Your task to perform on an android device: turn off javascript in the chrome app Image 0: 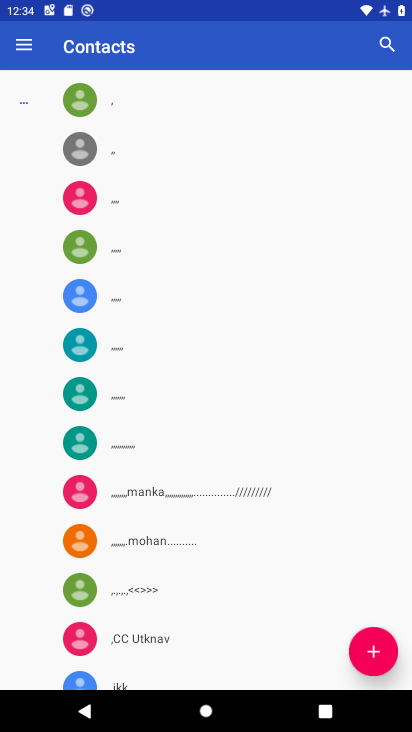
Step 0: press home button
Your task to perform on an android device: turn off javascript in the chrome app Image 1: 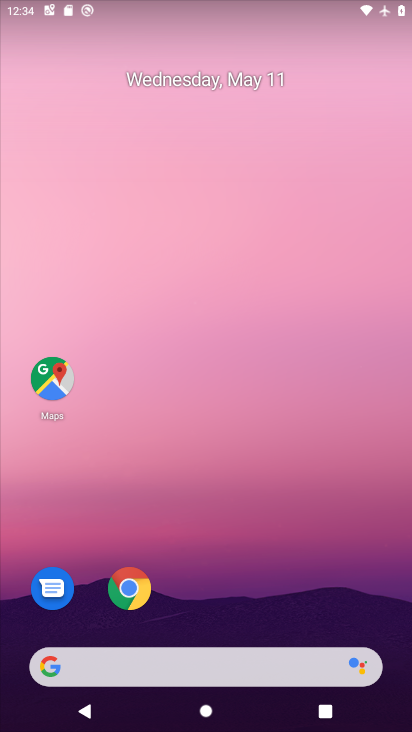
Step 1: click (131, 586)
Your task to perform on an android device: turn off javascript in the chrome app Image 2: 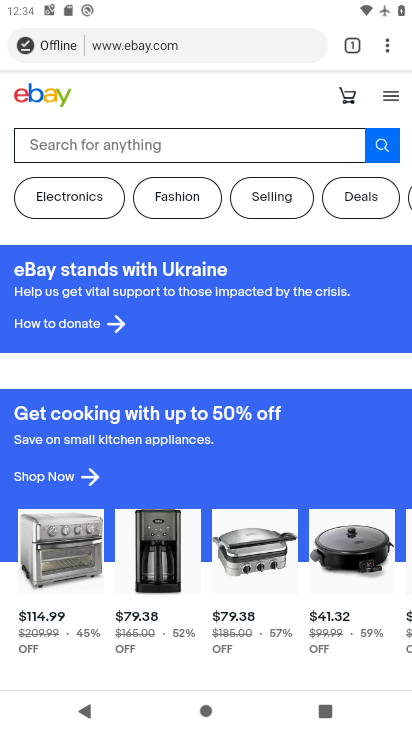
Step 2: click (390, 42)
Your task to perform on an android device: turn off javascript in the chrome app Image 3: 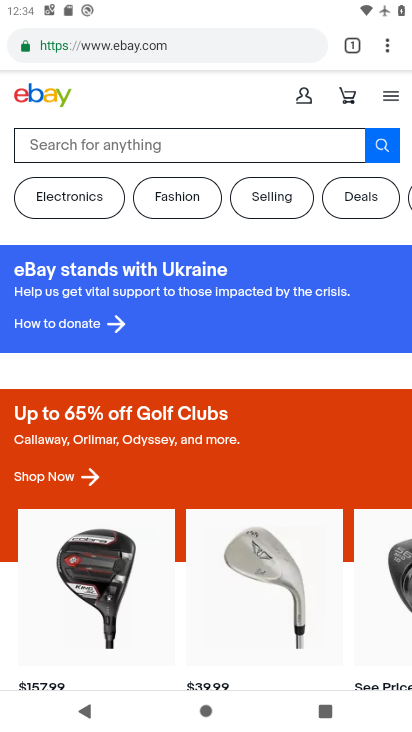
Step 3: click (388, 44)
Your task to perform on an android device: turn off javascript in the chrome app Image 4: 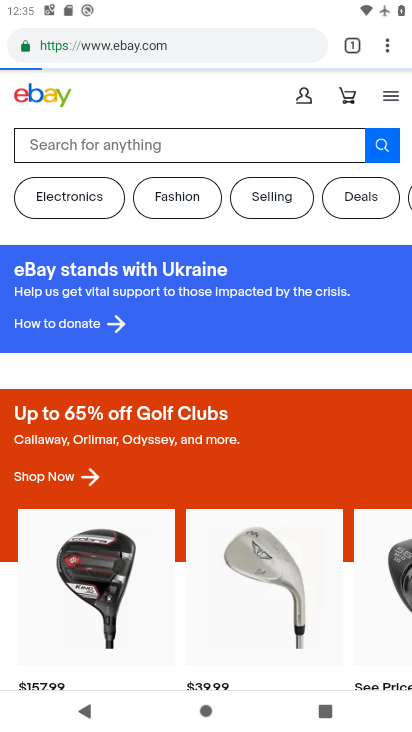
Step 4: click (388, 44)
Your task to perform on an android device: turn off javascript in the chrome app Image 5: 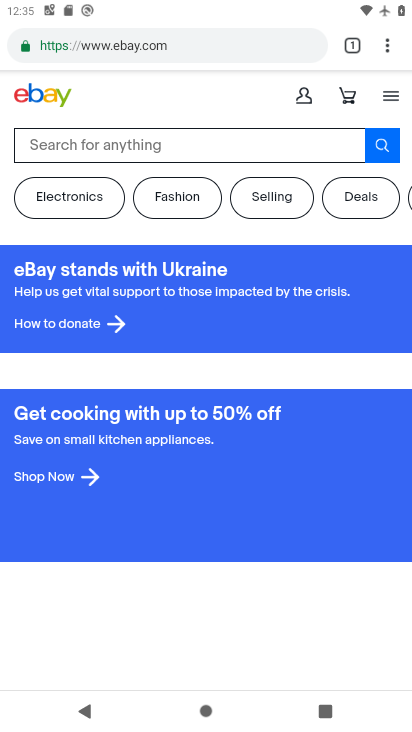
Step 5: click (389, 50)
Your task to perform on an android device: turn off javascript in the chrome app Image 6: 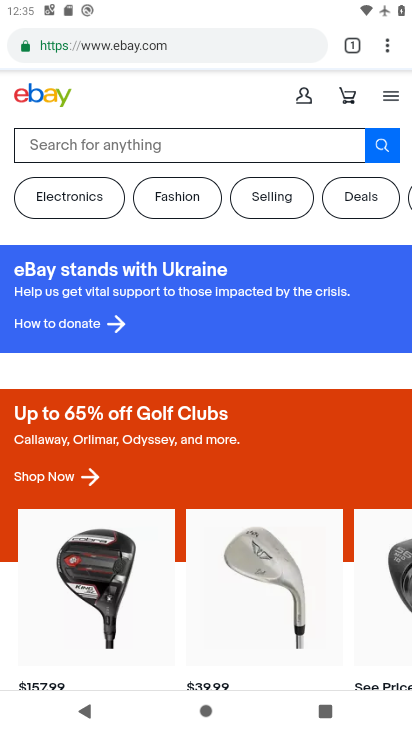
Step 6: click (388, 45)
Your task to perform on an android device: turn off javascript in the chrome app Image 7: 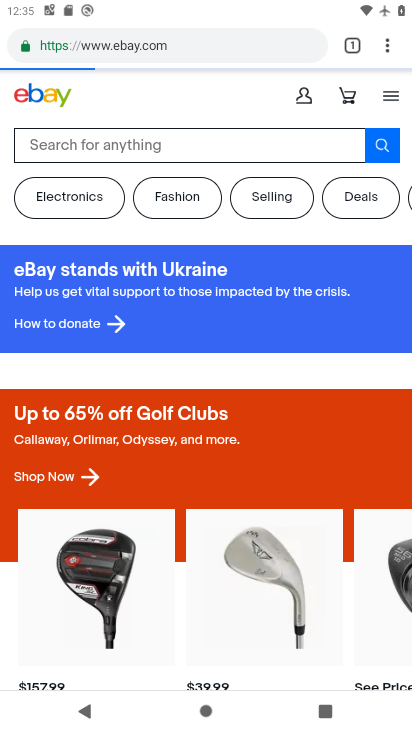
Step 7: click (388, 45)
Your task to perform on an android device: turn off javascript in the chrome app Image 8: 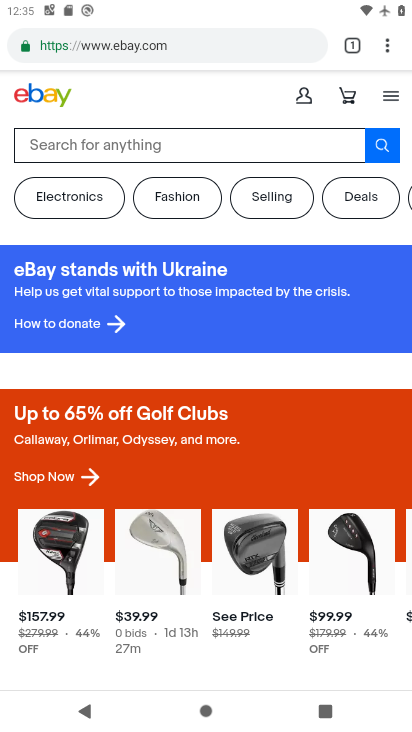
Step 8: click (382, 40)
Your task to perform on an android device: turn off javascript in the chrome app Image 9: 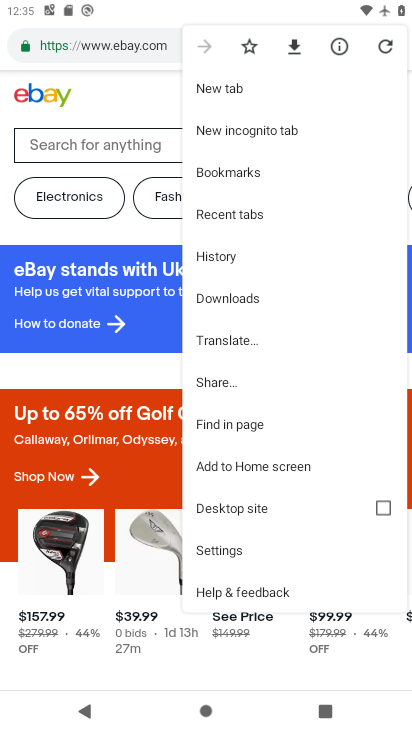
Step 9: click (243, 538)
Your task to perform on an android device: turn off javascript in the chrome app Image 10: 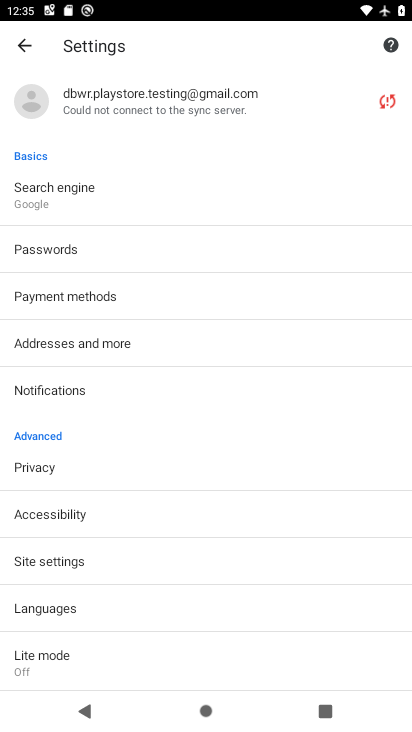
Step 10: drag from (73, 663) to (126, 310)
Your task to perform on an android device: turn off javascript in the chrome app Image 11: 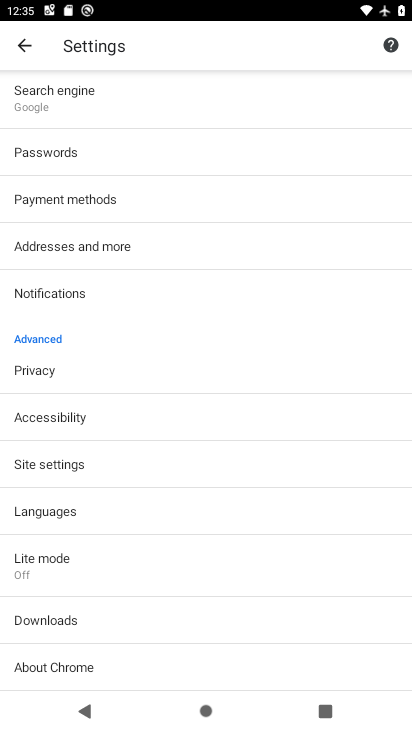
Step 11: click (42, 470)
Your task to perform on an android device: turn off javascript in the chrome app Image 12: 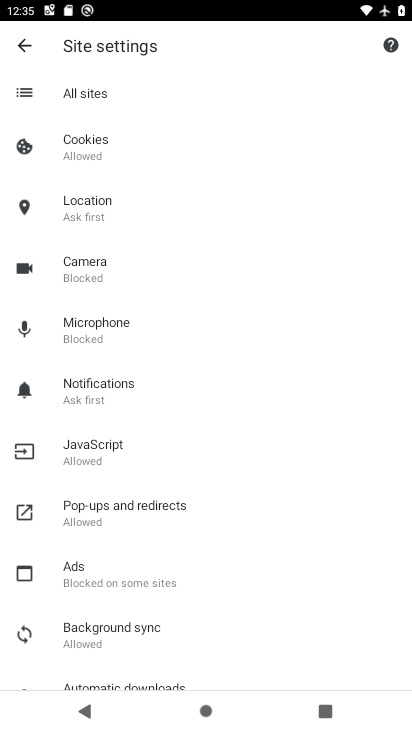
Step 12: click (102, 454)
Your task to perform on an android device: turn off javascript in the chrome app Image 13: 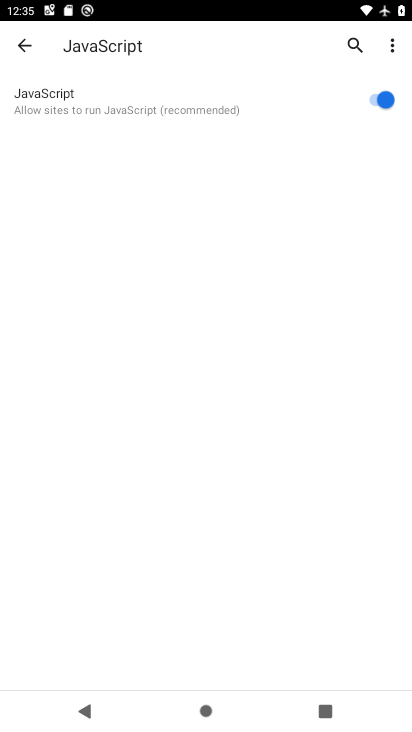
Step 13: click (369, 98)
Your task to perform on an android device: turn off javascript in the chrome app Image 14: 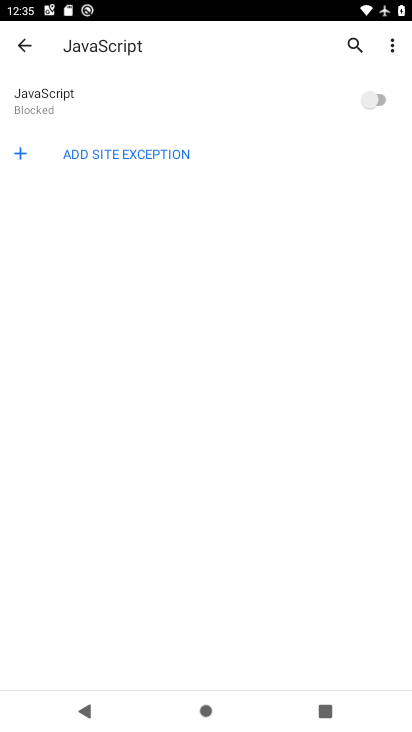
Step 14: task complete